Your task to perform on an android device: Set the phone to "Do not disturb". Image 0: 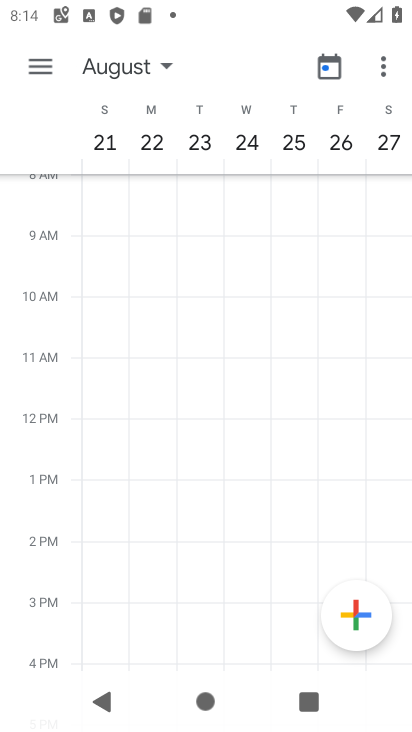
Step 0: press home button
Your task to perform on an android device: Set the phone to "Do not disturb". Image 1: 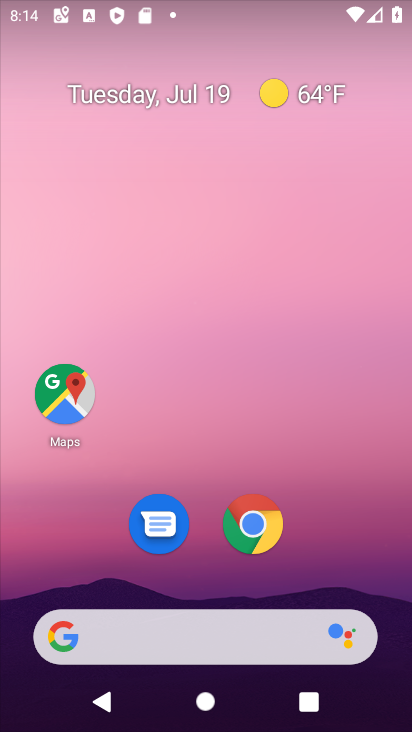
Step 1: drag from (315, 548) to (321, 28)
Your task to perform on an android device: Set the phone to "Do not disturb". Image 2: 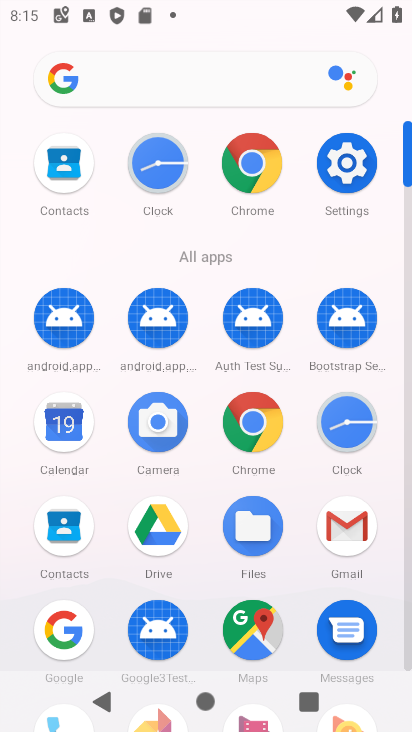
Step 2: click (349, 162)
Your task to perform on an android device: Set the phone to "Do not disturb". Image 3: 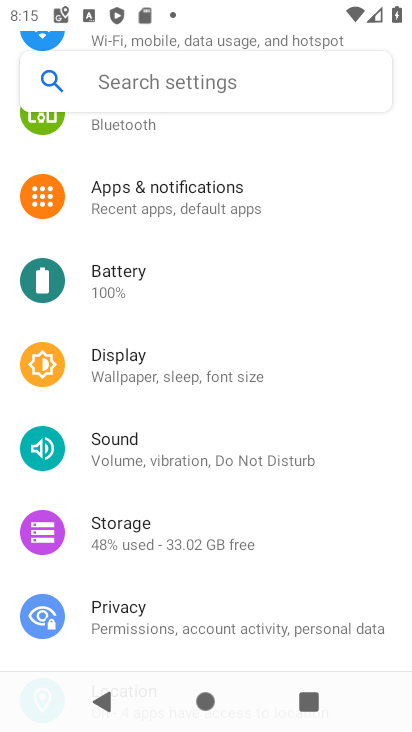
Step 3: click (201, 455)
Your task to perform on an android device: Set the phone to "Do not disturb". Image 4: 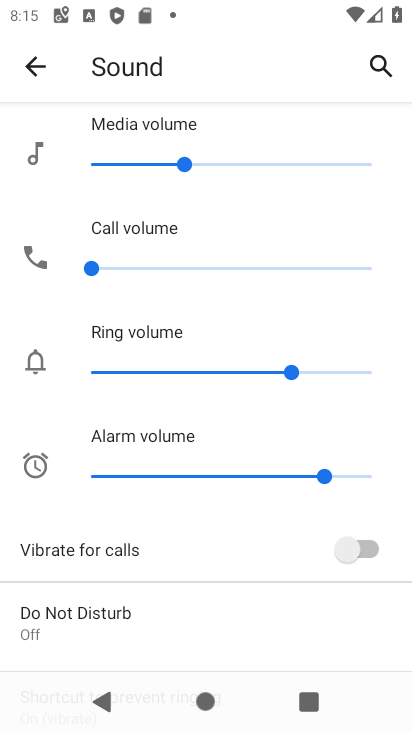
Step 4: click (69, 615)
Your task to perform on an android device: Set the phone to "Do not disturb". Image 5: 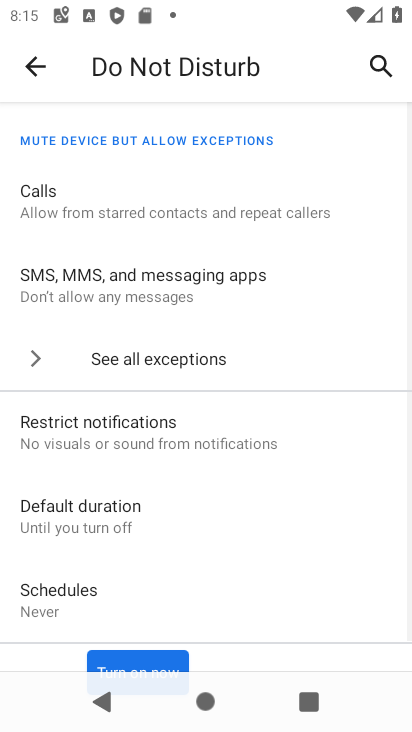
Step 5: drag from (156, 524) to (175, 385)
Your task to perform on an android device: Set the phone to "Do not disturb". Image 6: 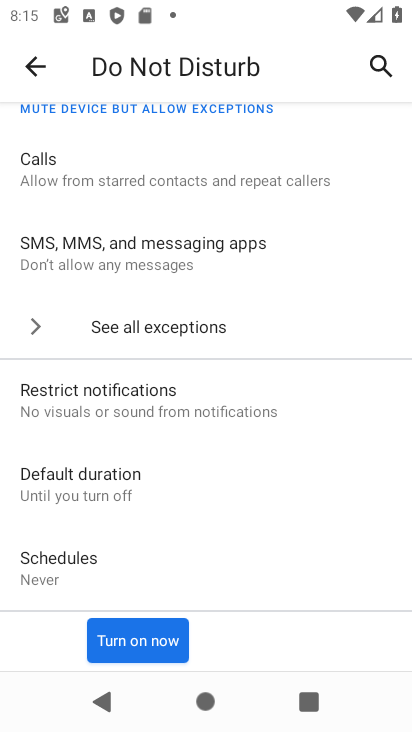
Step 6: click (140, 639)
Your task to perform on an android device: Set the phone to "Do not disturb". Image 7: 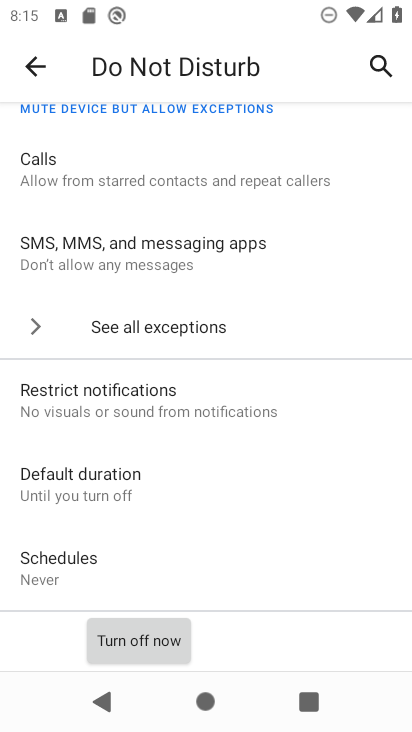
Step 7: click (32, 65)
Your task to perform on an android device: Set the phone to "Do not disturb". Image 8: 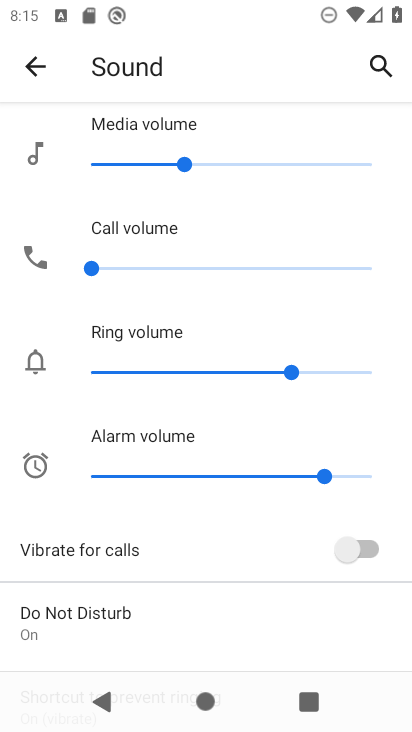
Step 8: task complete